Your task to perform on an android device: Go to accessibility settings Image 0: 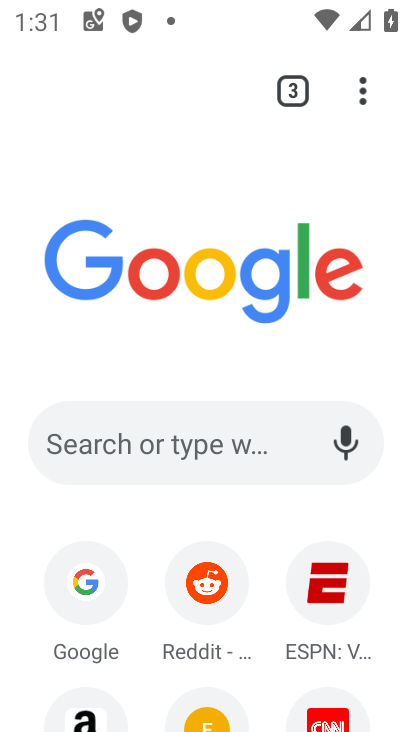
Step 0: click (373, 87)
Your task to perform on an android device: Go to accessibility settings Image 1: 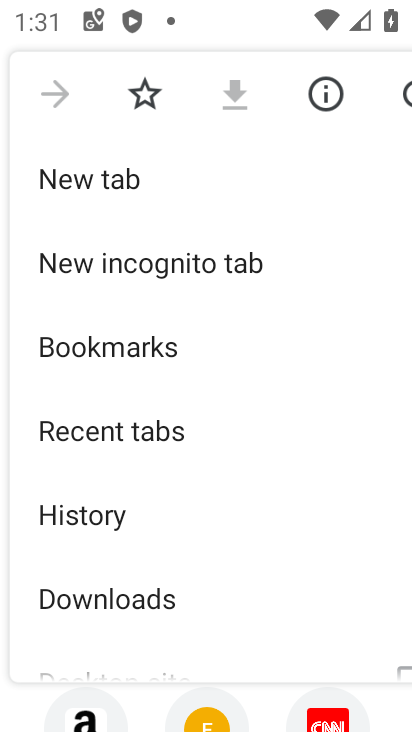
Step 1: press home button
Your task to perform on an android device: Go to accessibility settings Image 2: 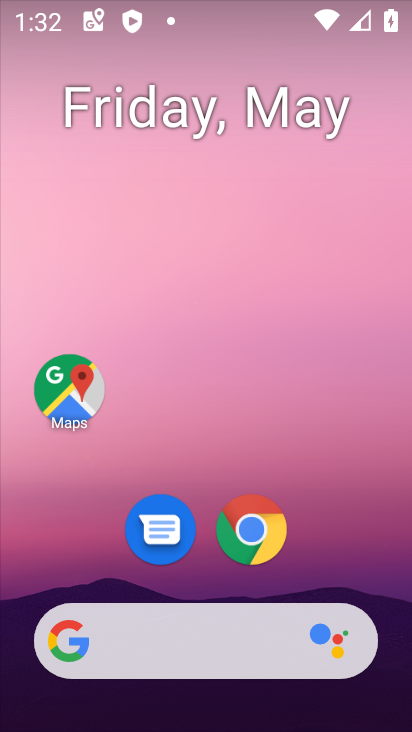
Step 2: drag from (353, 515) to (201, 97)
Your task to perform on an android device: Go to accessibility settings Image 3: 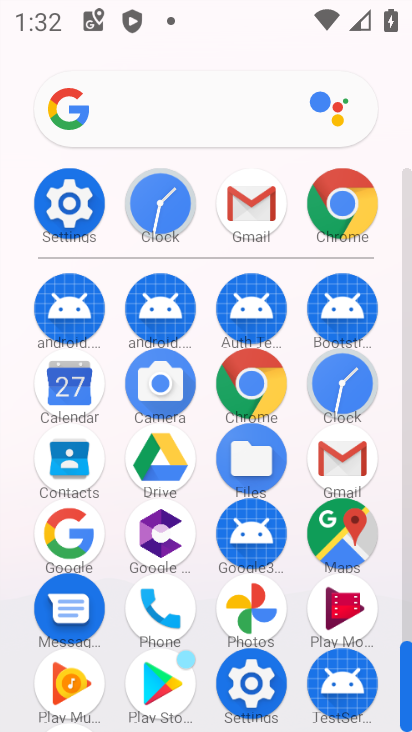
Step 3: click (81, 212)
Your task to perform on an android device: Go to accessibility settings Image 4: 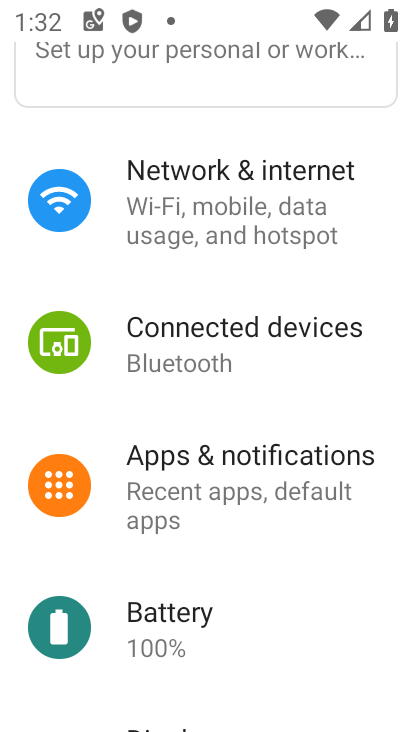
Step 4: drag from (297, 653) to (165, 382)
Your task to perform on an android device: Go to accessibility settings Image 5: 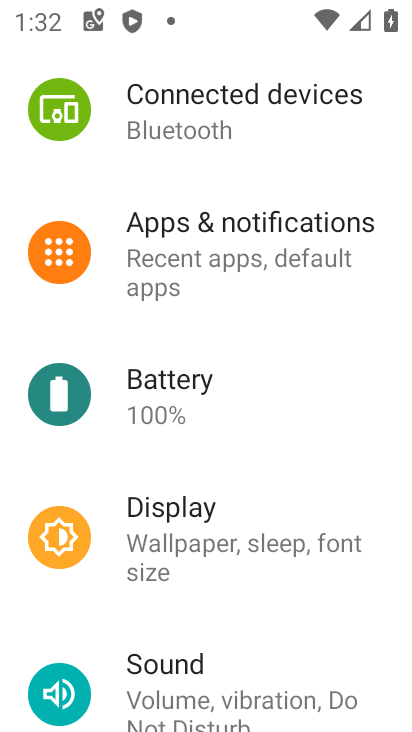
Step 5: drag from (189, 712) to (165, 444)
Your task to perform on an android device: Go to accessibility settings Image 6: 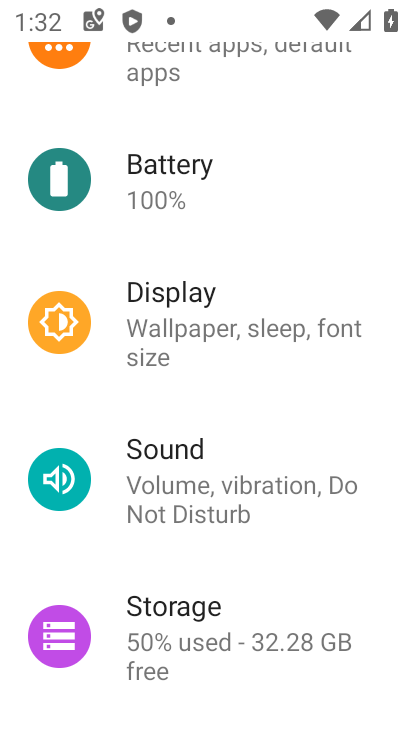
Step 6: drag from (213, 623) to (184, 465)
Your task to perform on an android device: Go to accessibility settings Image 7: 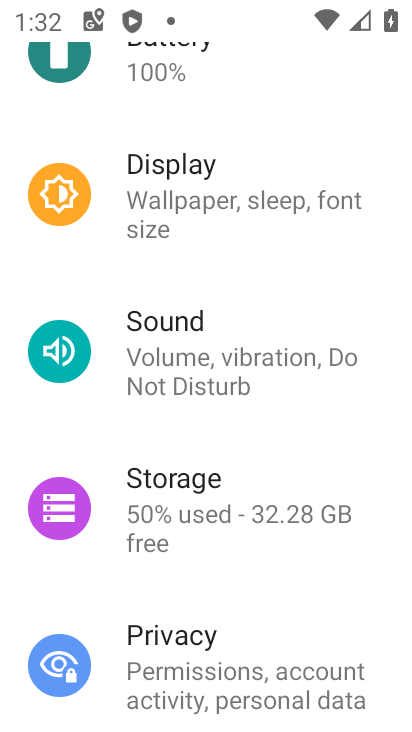
Step 7: drag from (234, 702) to (222, 614)
Your task to perform on an android device: Go to accessibility settings Image 8: 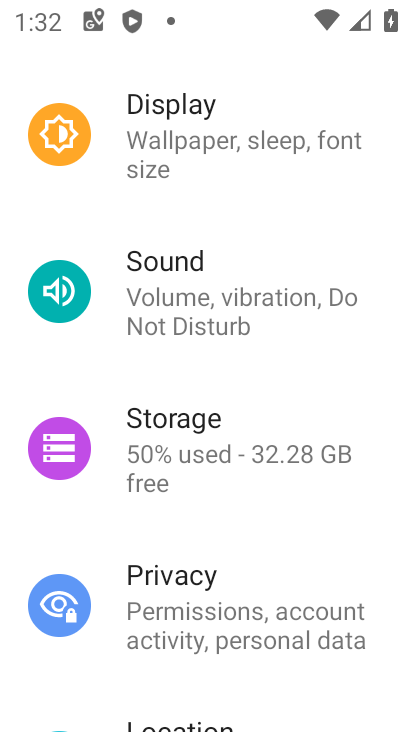
Step 8: drag from (235, 660) to (214, 563)
Your task to perform on an android device: Go to accessibility settings Image 9: 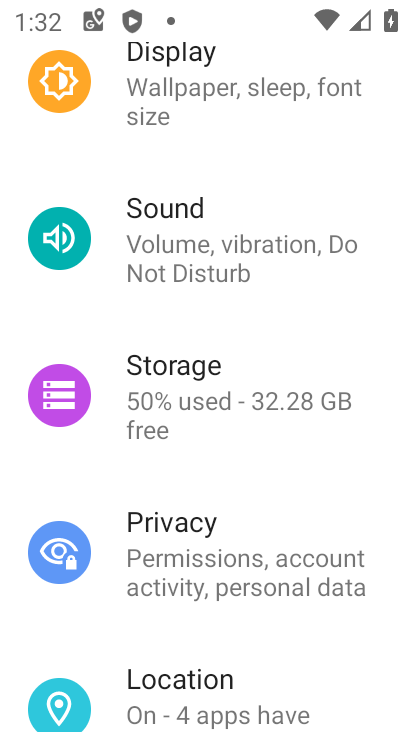
Step 9: drag from (252, 665) to (204, 499)
Your task to perform on an android device: Go to accessibility settings Image 10: 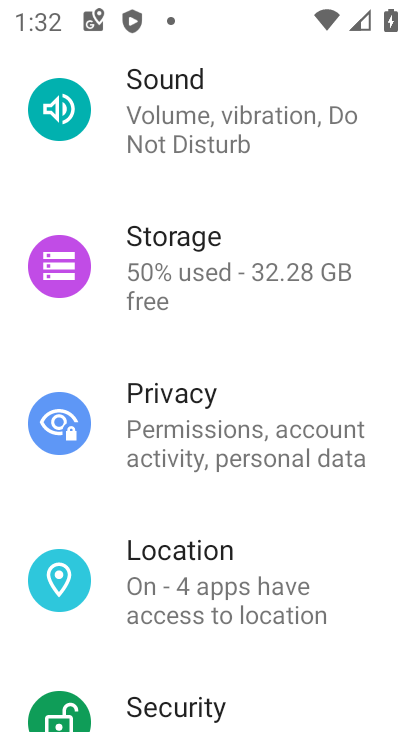
Step 10: drag from (212, 607) to (178, 454)
Your task to perform on an android device: Go to accessibility settings Image 11: 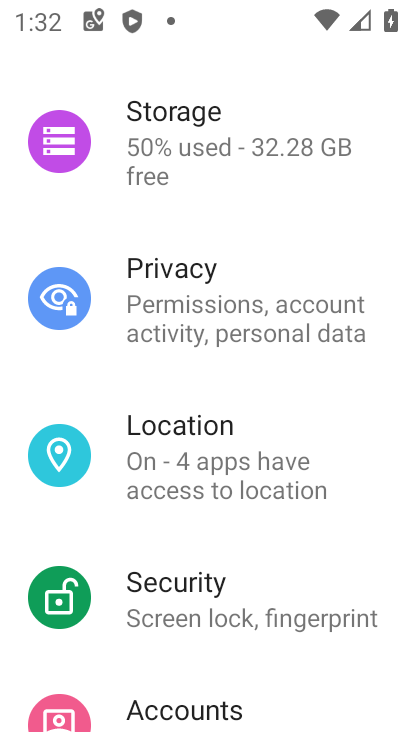
Step 11: drag from (193, 655) to (178, 617)
Your task to perform on an android device: Go to accessibility settings Image 12: 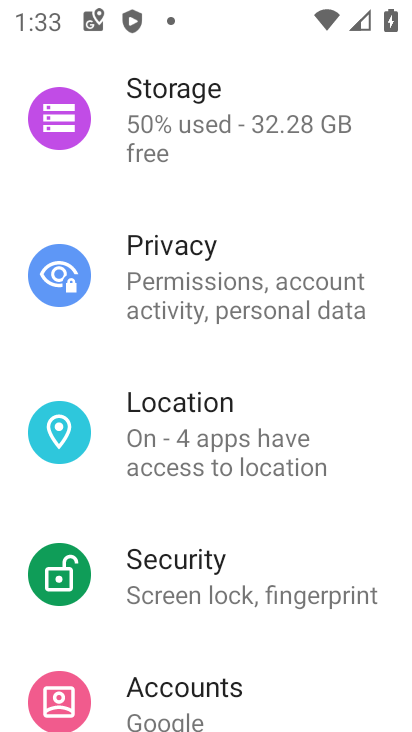
Step 12: drag from (250, 704) to (203, 359)
Your task to perform on an android device: Go to accessibility settings Image 13: 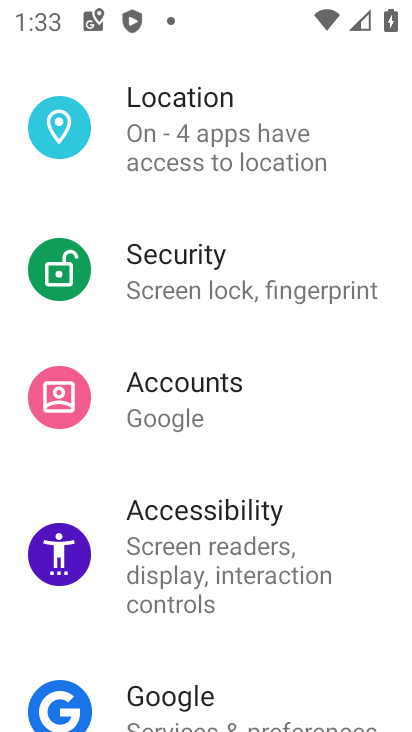
Step 13: click (291, 518)
Your task to perform on an android device: Go to accessibility settings Image 14: 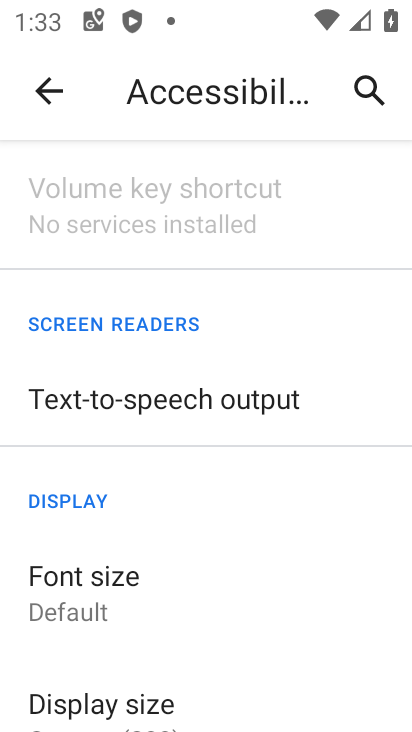
Step 14: task complete